Your task to perform on an android device: Open Google Chrome and open the bookmarks view Image 0: 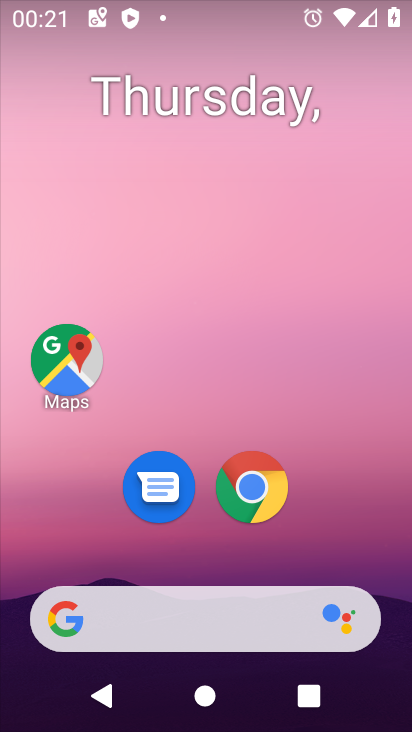
Step 0: click (260, 484)
Your task to perform on an android device: Open Google Chrome and open the bookmarks view Image 1: 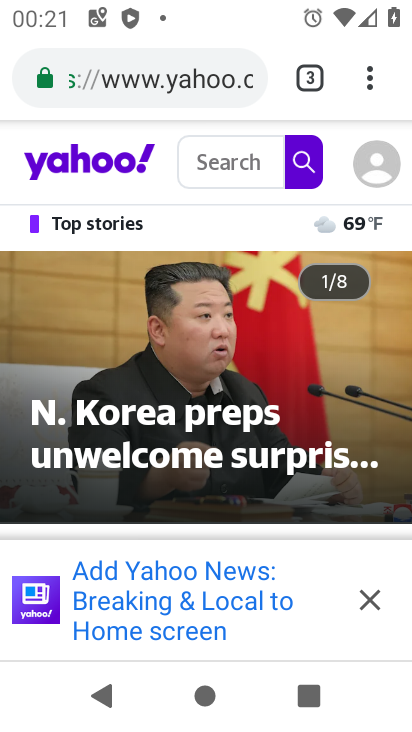
Step 1: click (370, 76)
Your task to perform on an android device: Open Google Chrome and open the bookmarks view Image 2: 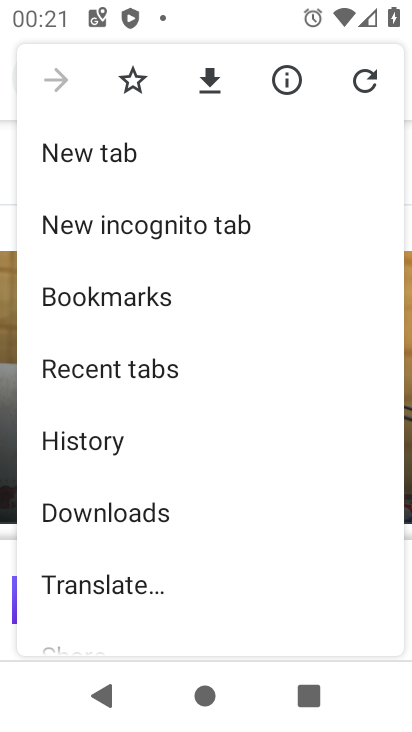
Step 2: click (78, 291)
Your task to perform on an android device: Open Google Chrome and open the bookmarks view Image 3: 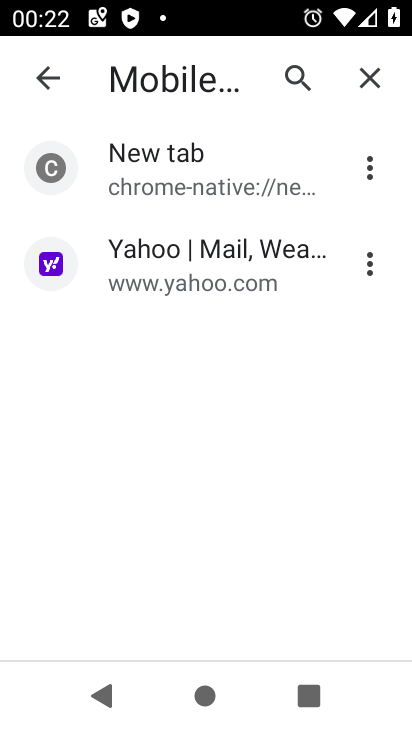
Step 3: task complete